Your task to perform on an android device: uninstall "Adobe Express: Graphic Design" Image 0: 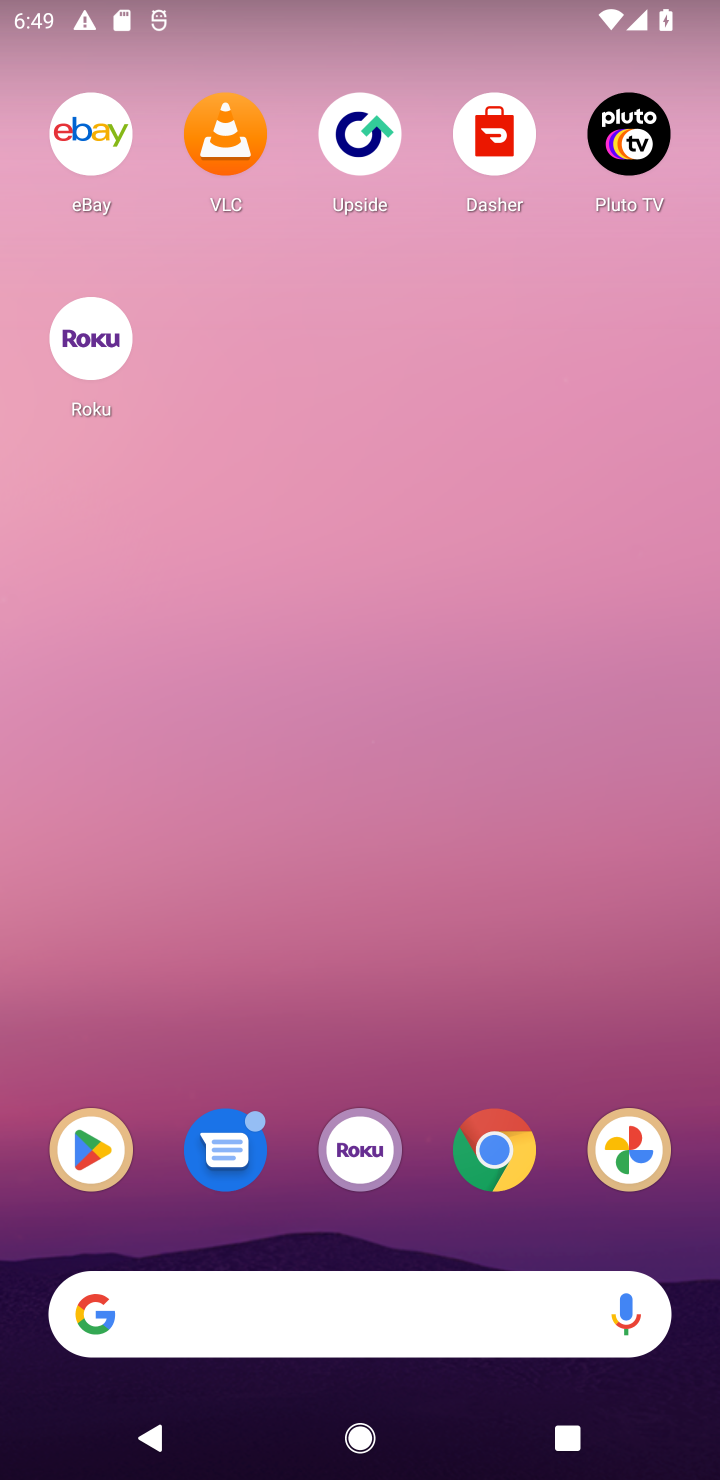
Step 0: drag from (358, 1242) to (342, 150)
Your task to perform on an android device: uninstall "Adobe Express: Graphic Design" Image 1: 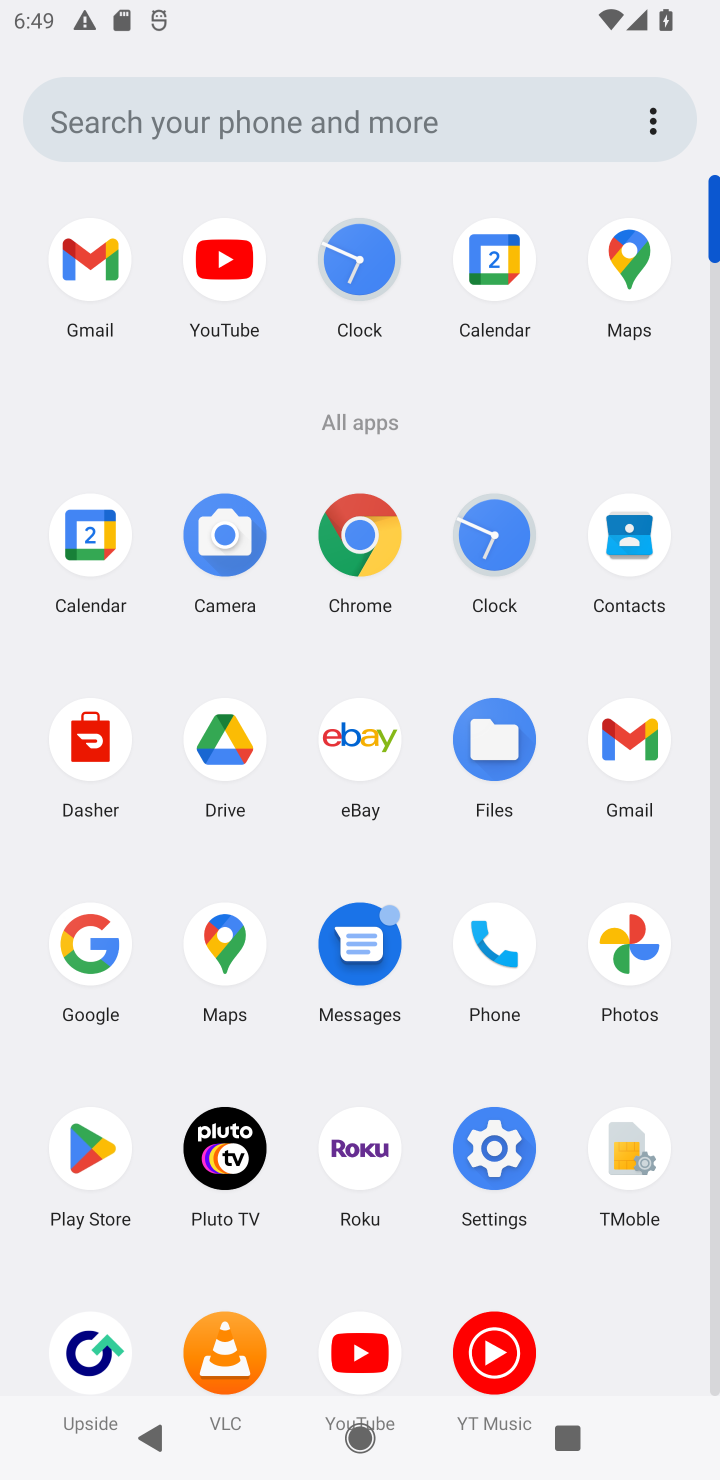
Step 1: click (103, 1164)
Your task to perform on an android device: uninstall "Adobe Express: Graphic Design" Image 2: 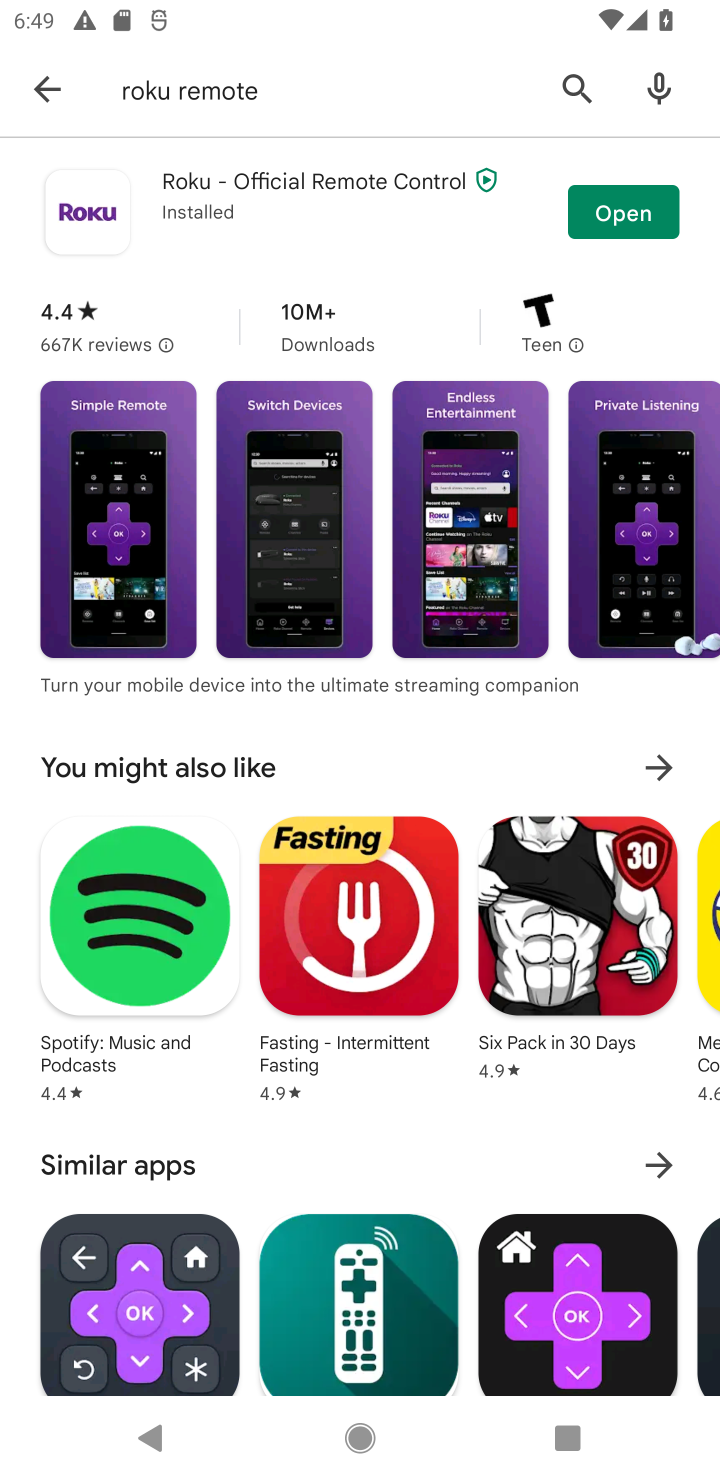
Step 2: click (36, 91)
Your task to perform on an android device: uninstall "Adobe Express: Graphic Design" Image 3: 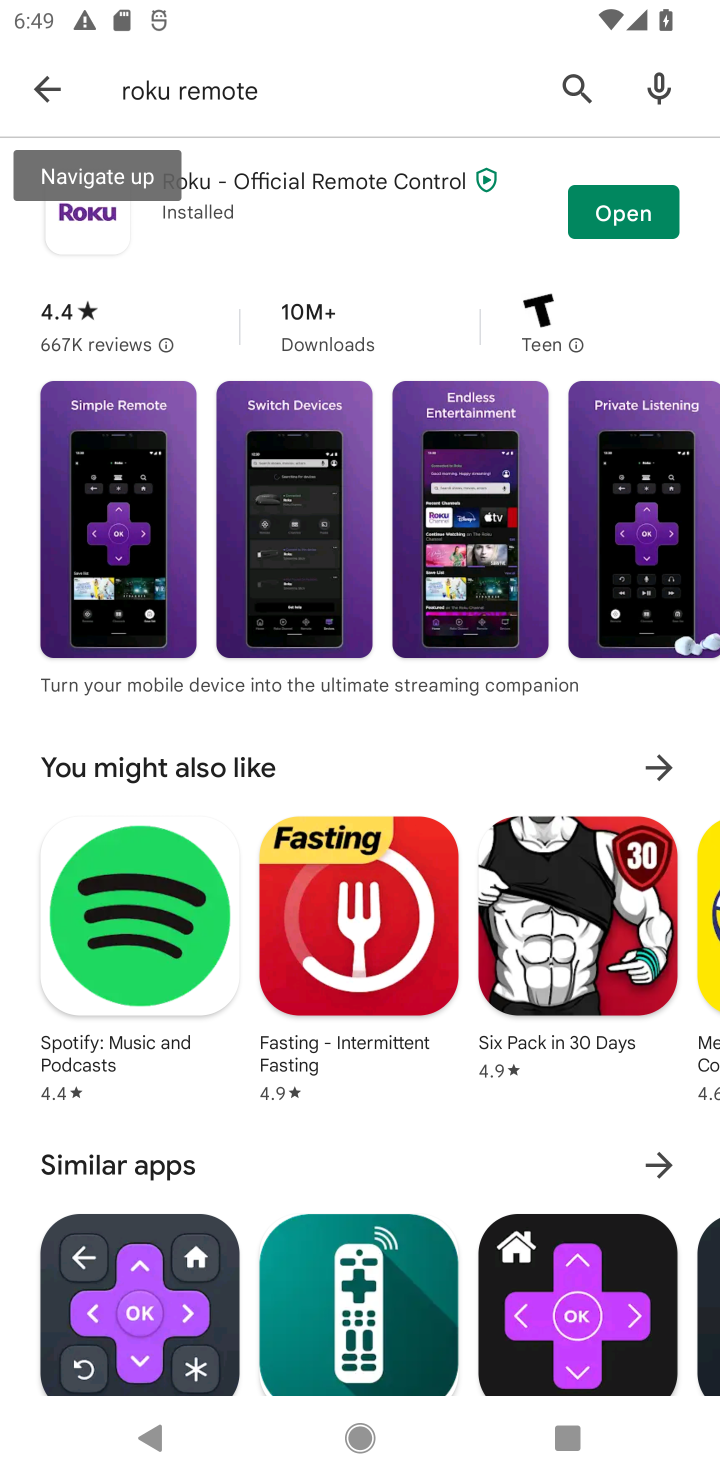
Step 3: click (38, 92)
Your task to perform on an android device: uninstall "Adobe Express: Graphic Design" Image 4: 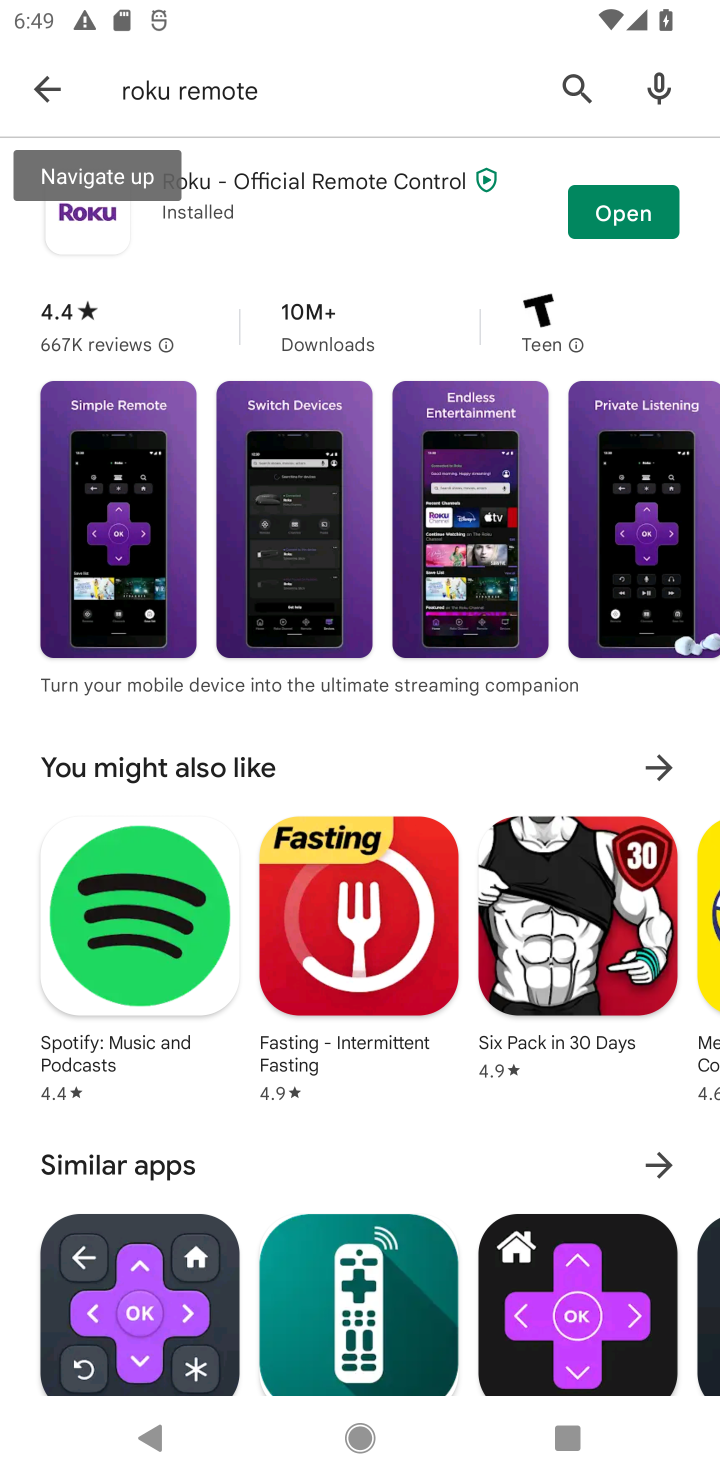
Step 4: click (38, 92)
Your task to perform on an android device: uninstall "Adobe Express: Graphic Design" Image 5: 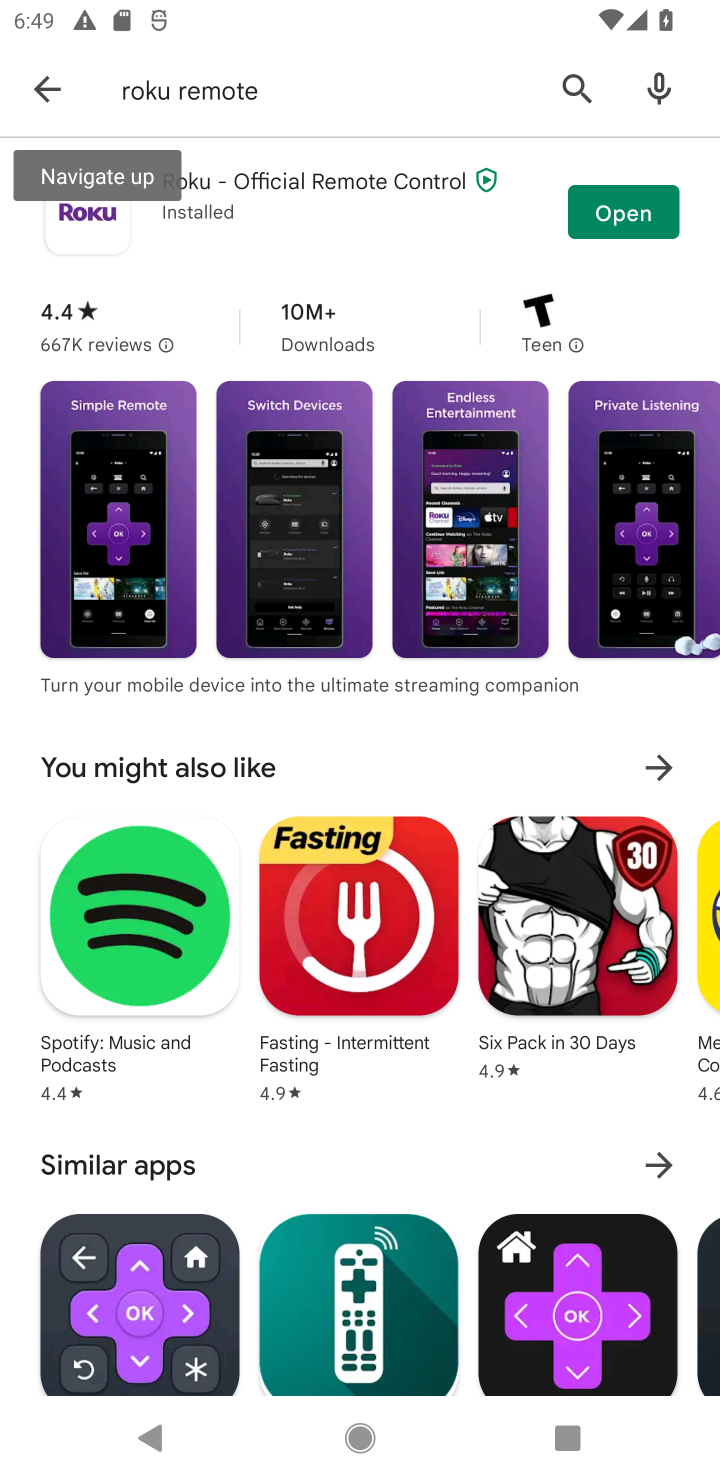
Step 5: click (40, 92)
Your task to perform on an android device: uninstall "Adobe Express: Graphic Design" Image 6: 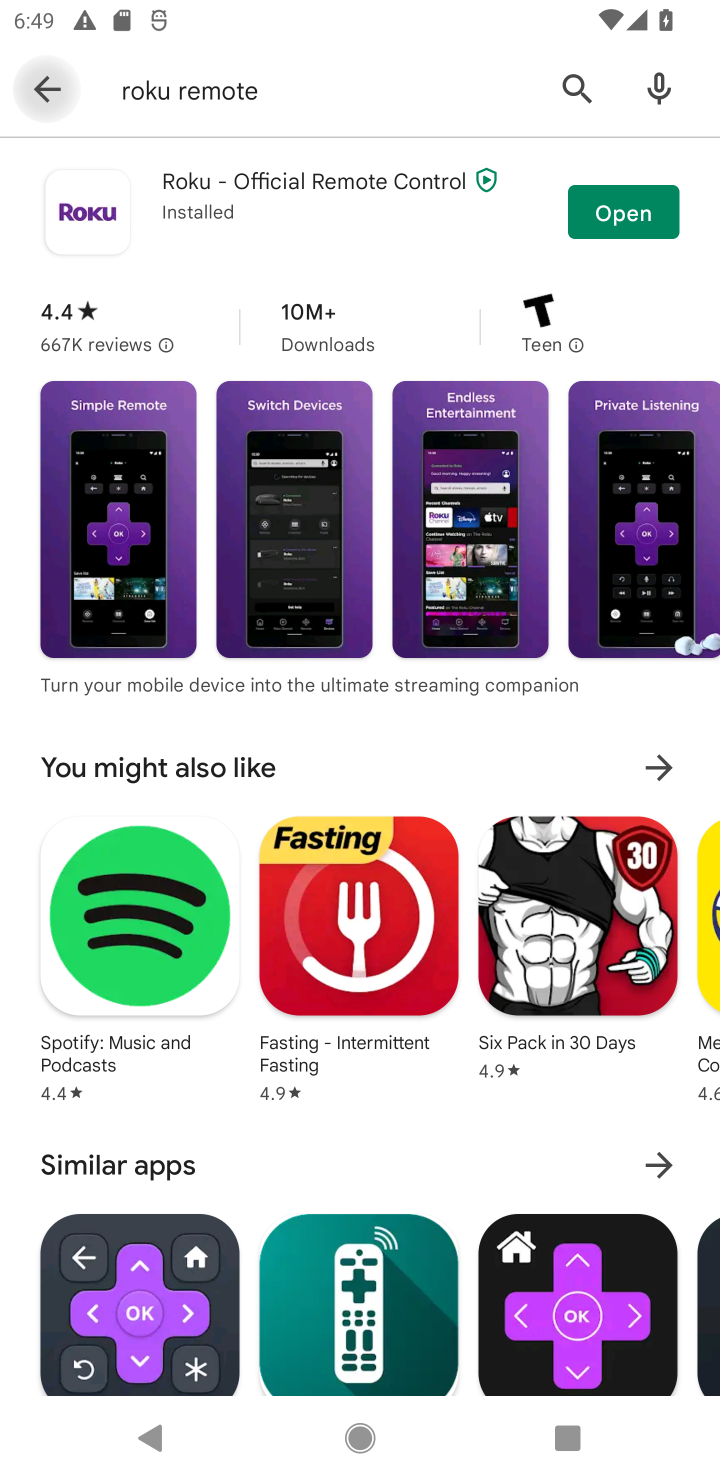
Step 6: click (578, 81)
Your task to perform on an android device: uninstall "Adobe Express: Graphic Design" Image 7: 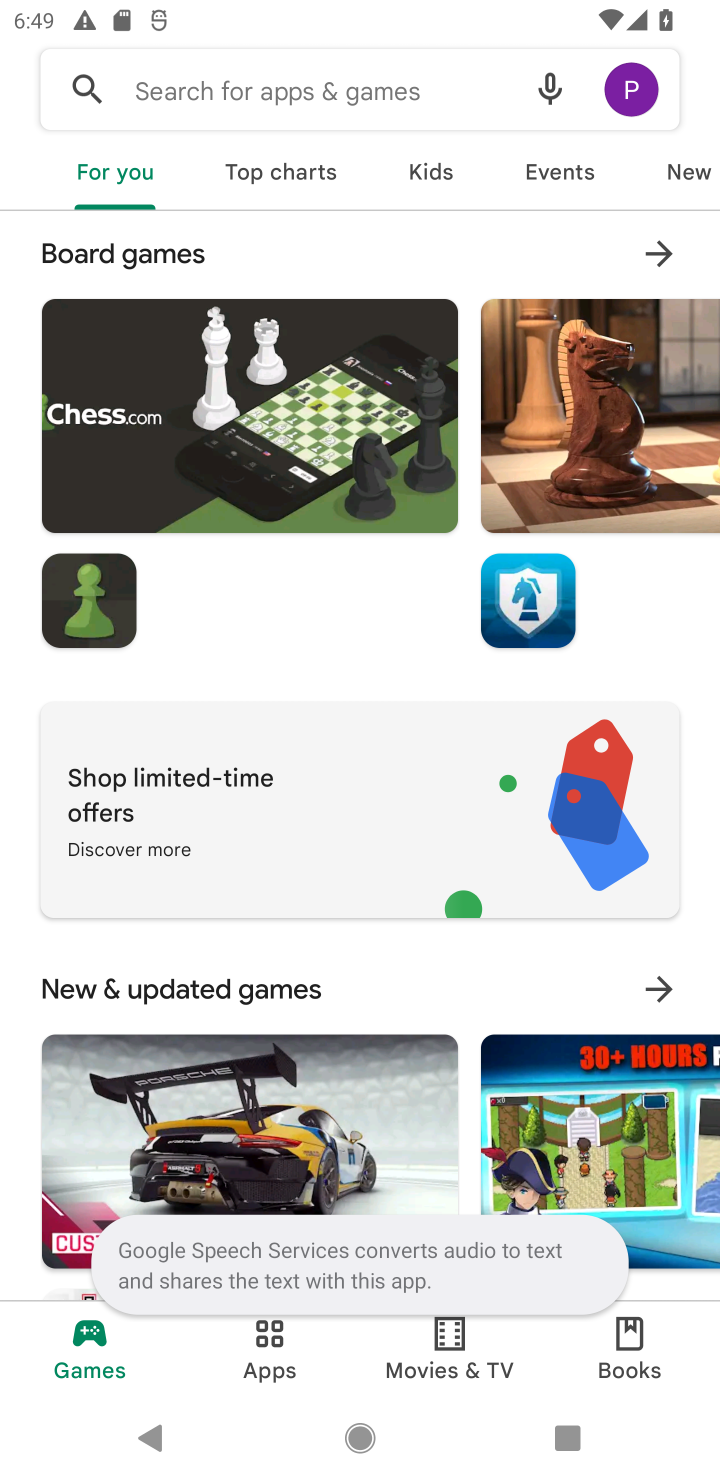
Step 7: click (234, 90)
Your task to perform on an android device: uninstall "Adobe Express: Graphic Design" Image 8: 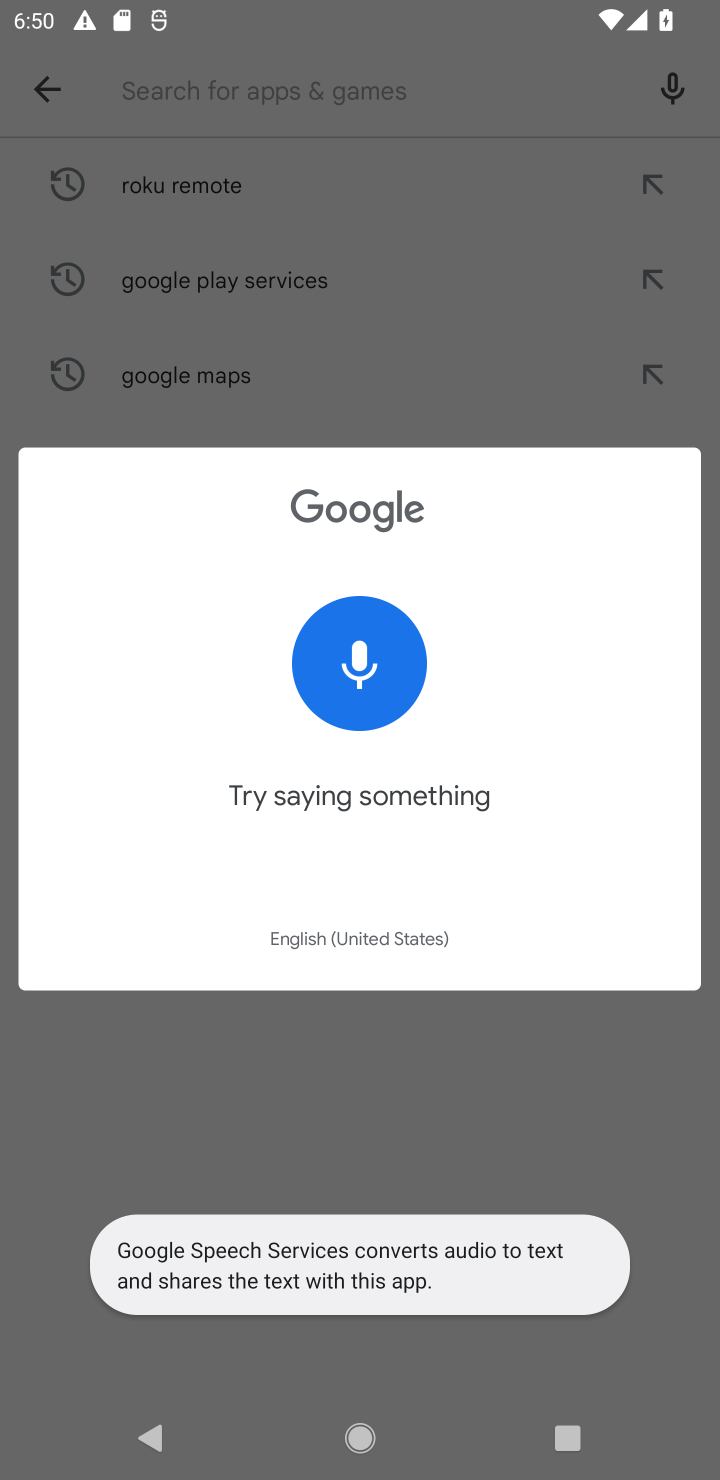
Step 8: click (343, 1213)
Your task to perform on an android device: uninstall "Adobe Express: Graphic Design" Image 9: 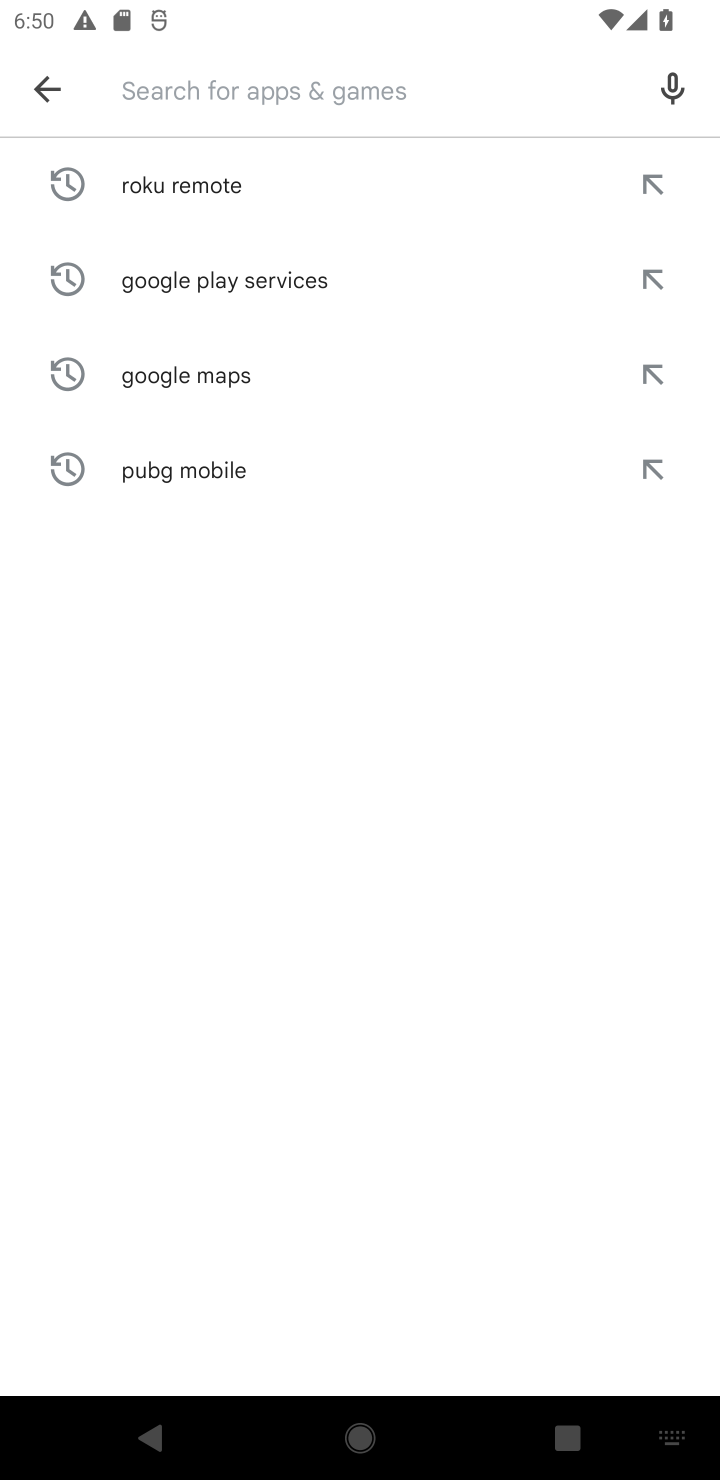
Step 9: type "Adobe Express"
Your task to perform on an android device: uninstall "Adobe Express: Graphic Design" Image 10: 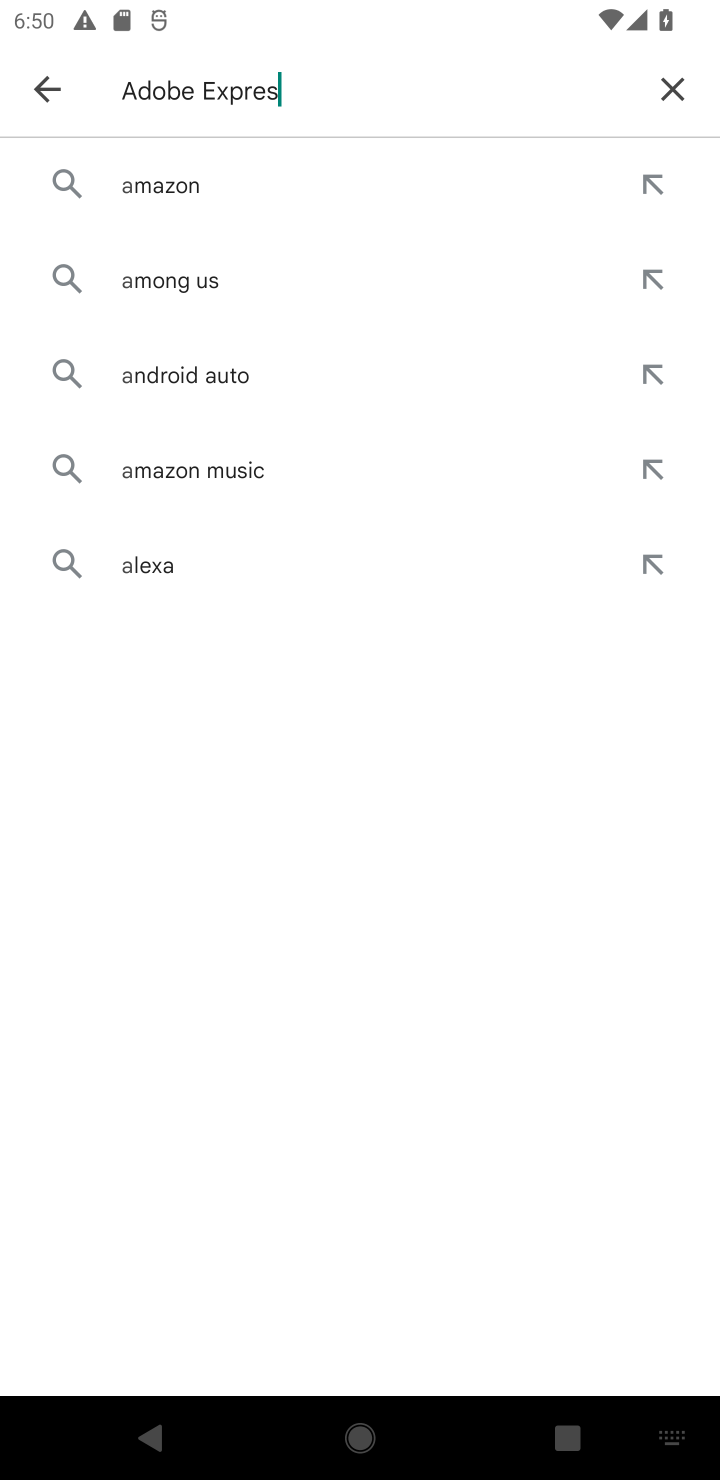
Step 10: type ""
Your task to perform on an android device: uninstall "Adobe Express: Graphic Design" Image 11: 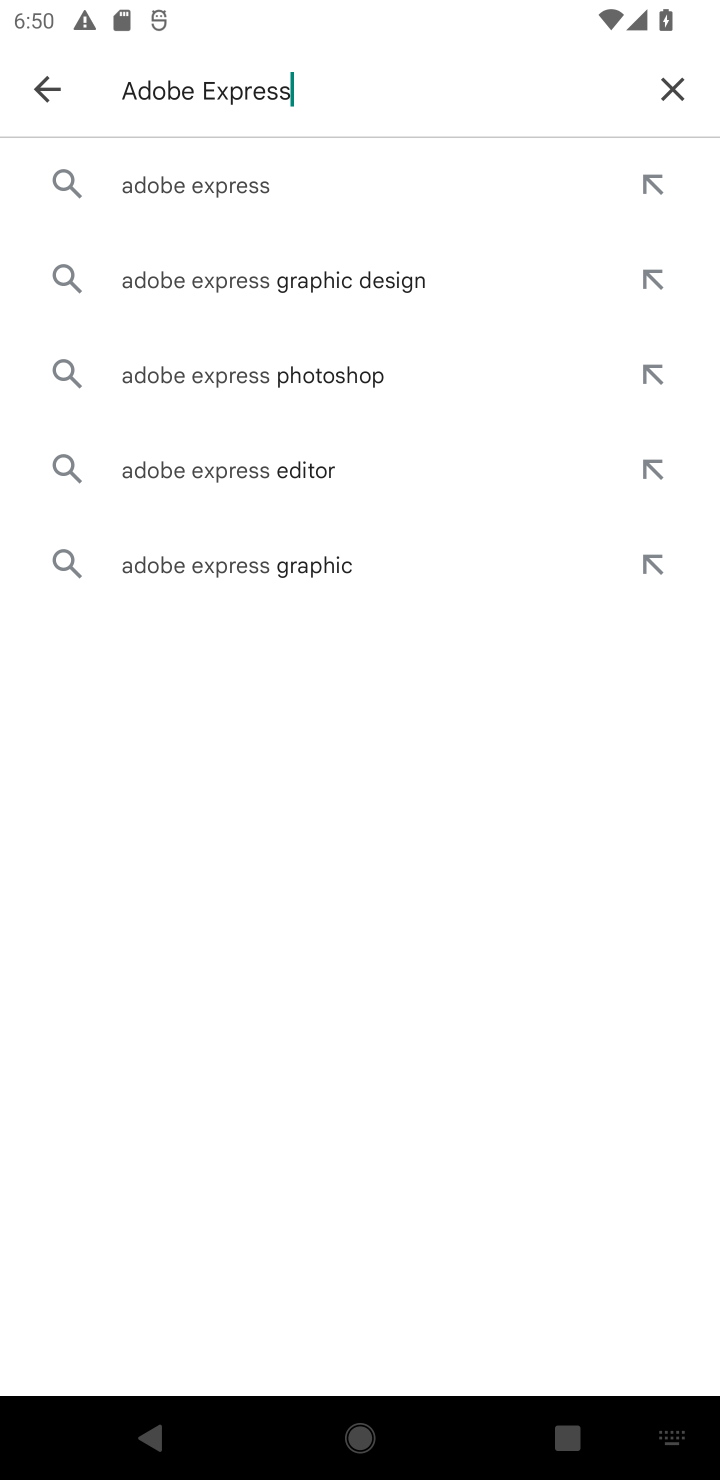
Step 11: click (154, 178)
Your task to perform on an android device: uninstall "Adobe Express: Graphic Design" Image 12: 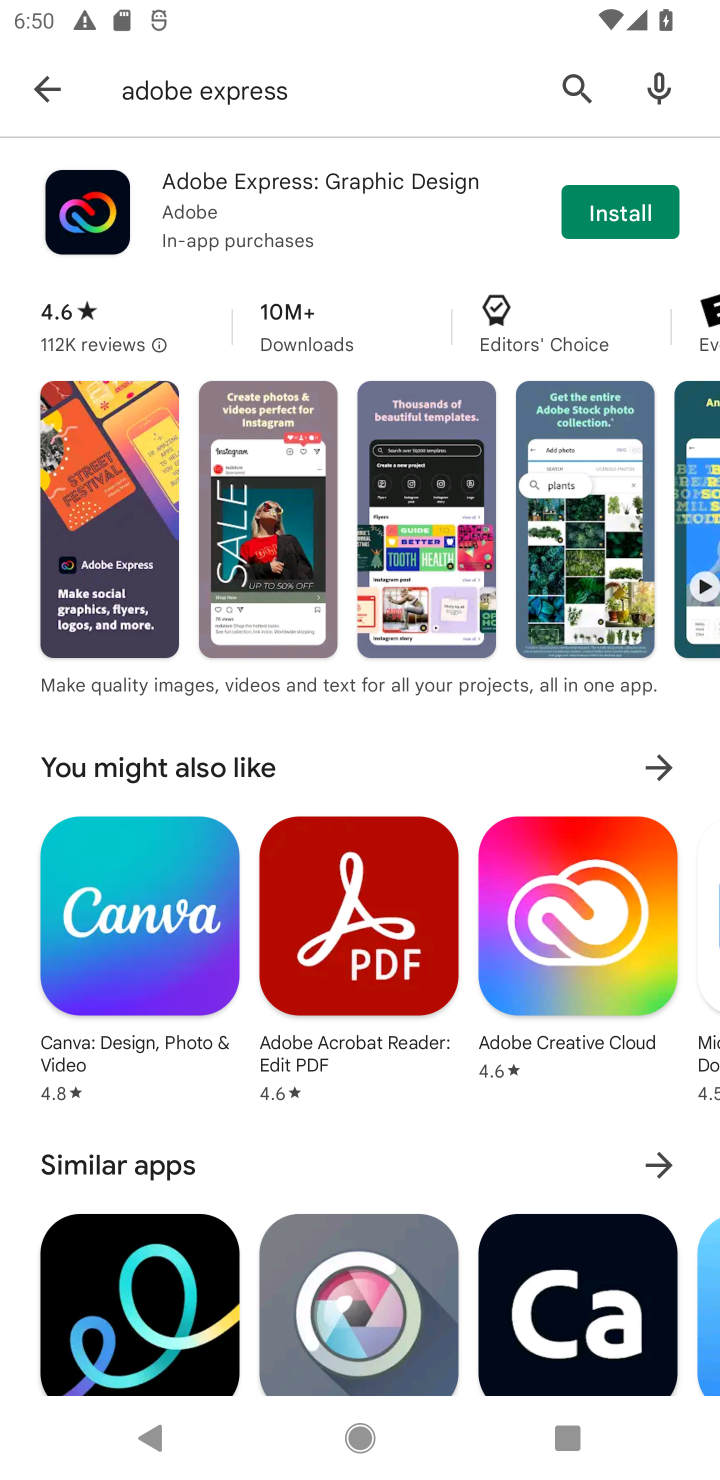
Step 12: click (232, 191)
Your task to perform on an android device: uninstall "Adobe Express: Graphic Design" Image 13: 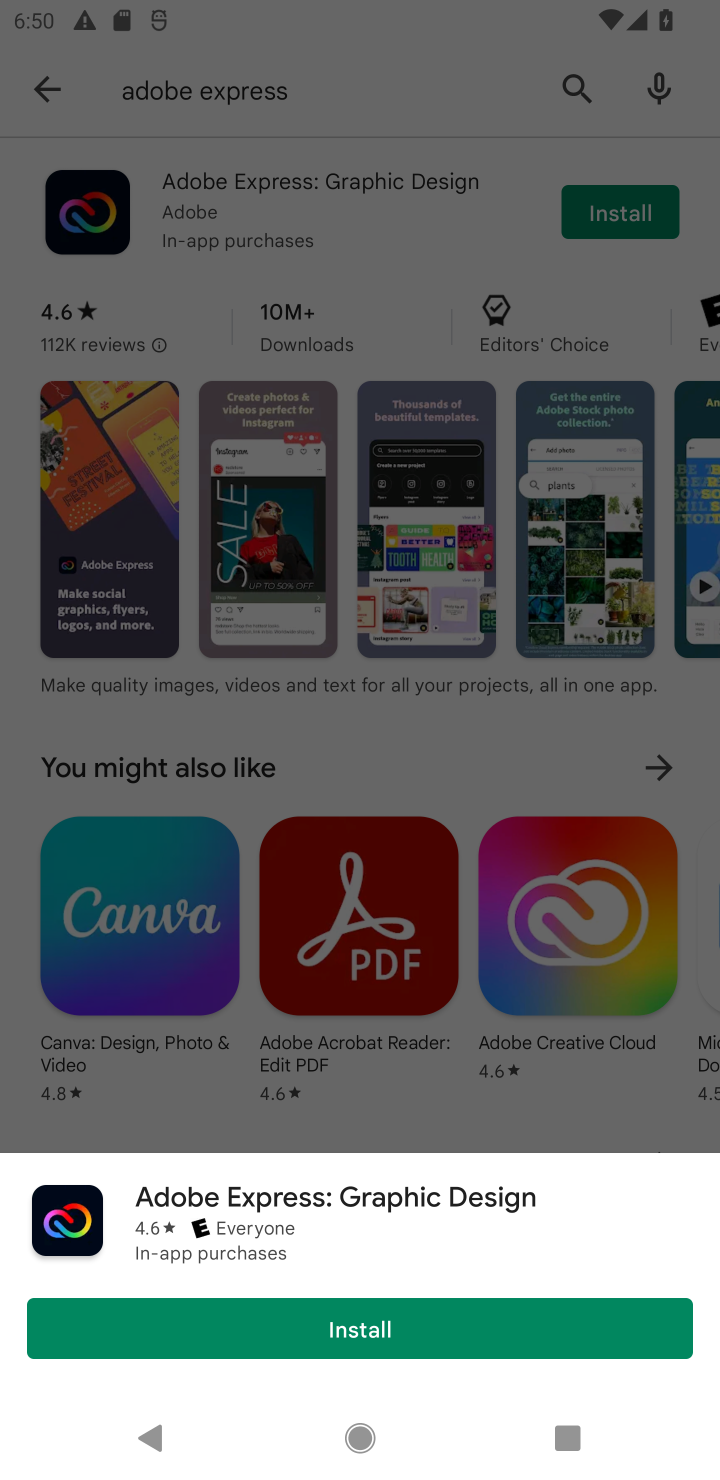
Step 13: task complete